Your task to perform on an android device: toggle wifi Image 0: 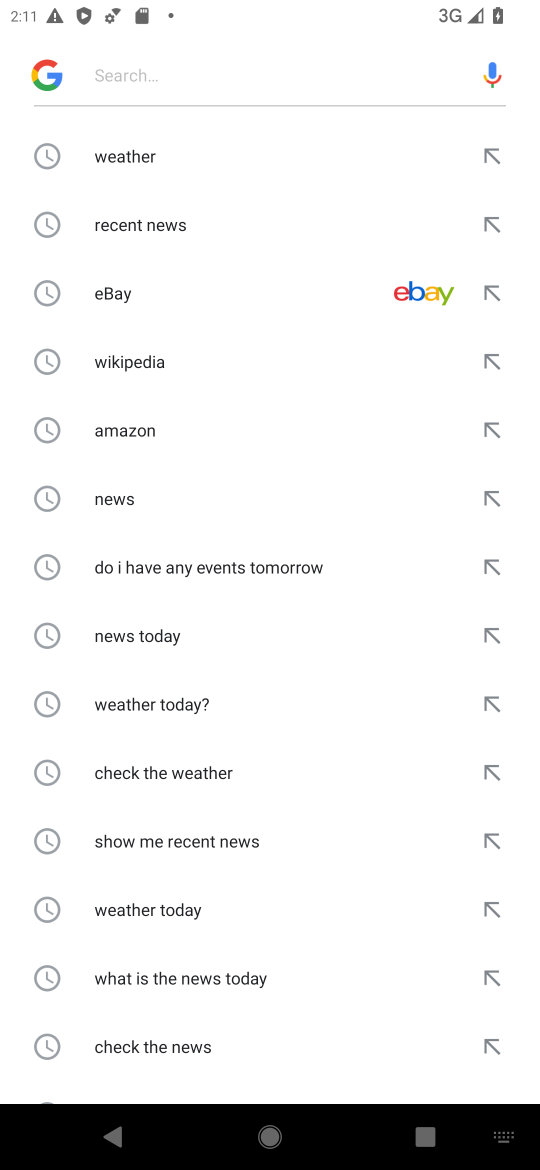
Step 0: press home button
Your task to perform on an android device: toggle wifi Image 1: 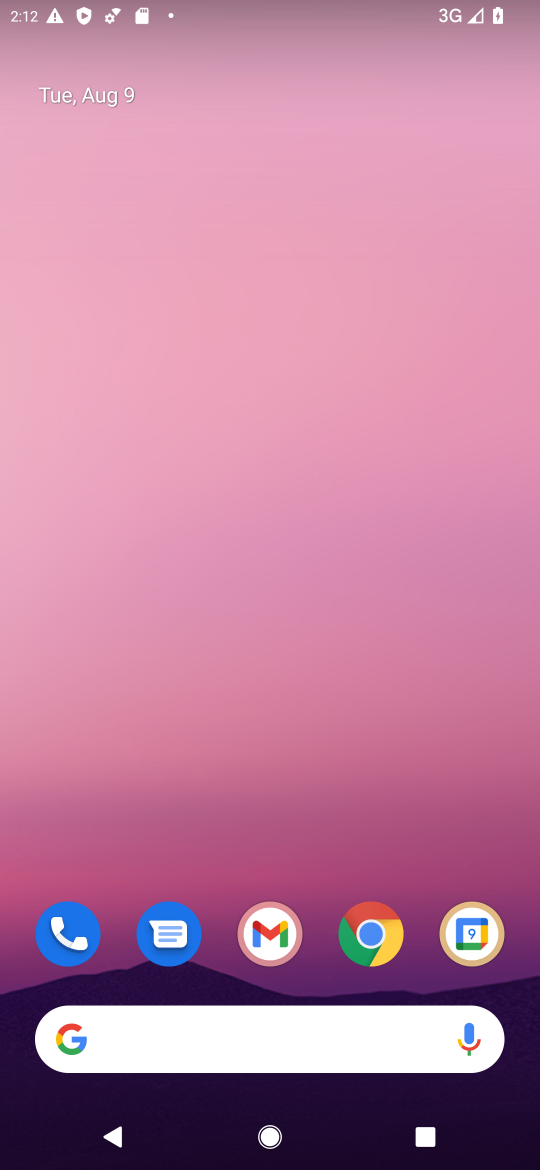
Step 1: drag from (312, 992) to (493, 136)
Your task to perform on an android device: toggle wifi Image 2: 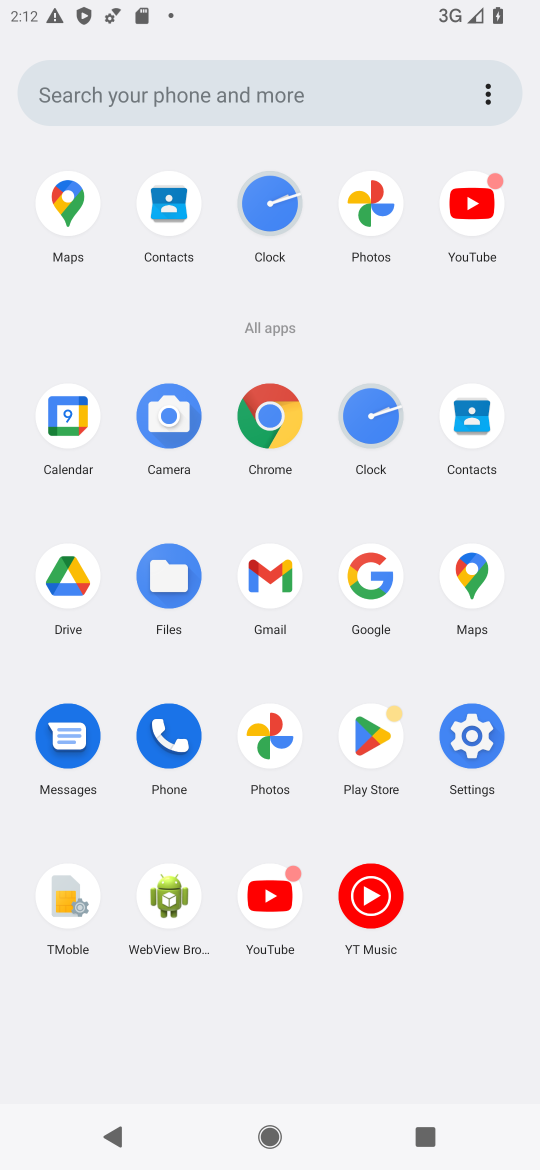
Step 2: click (480, 766)
Your task to perform on an android device: toggle wifi Image 3: 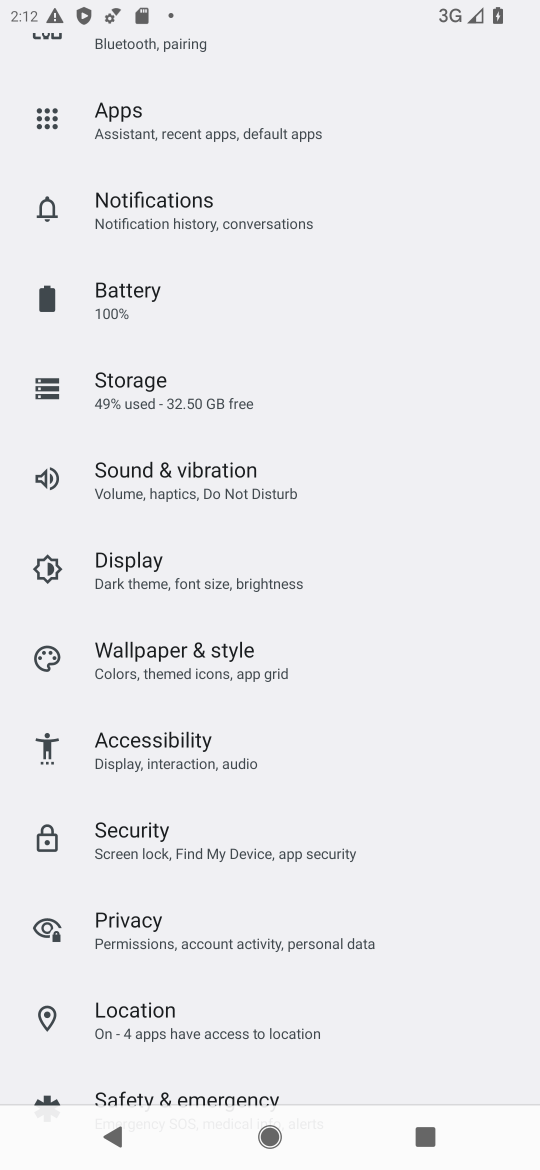
Step 3: drag from (259, 310) to (221, 1123)
Your task to perform on an android device: toggle wifi Image 4: 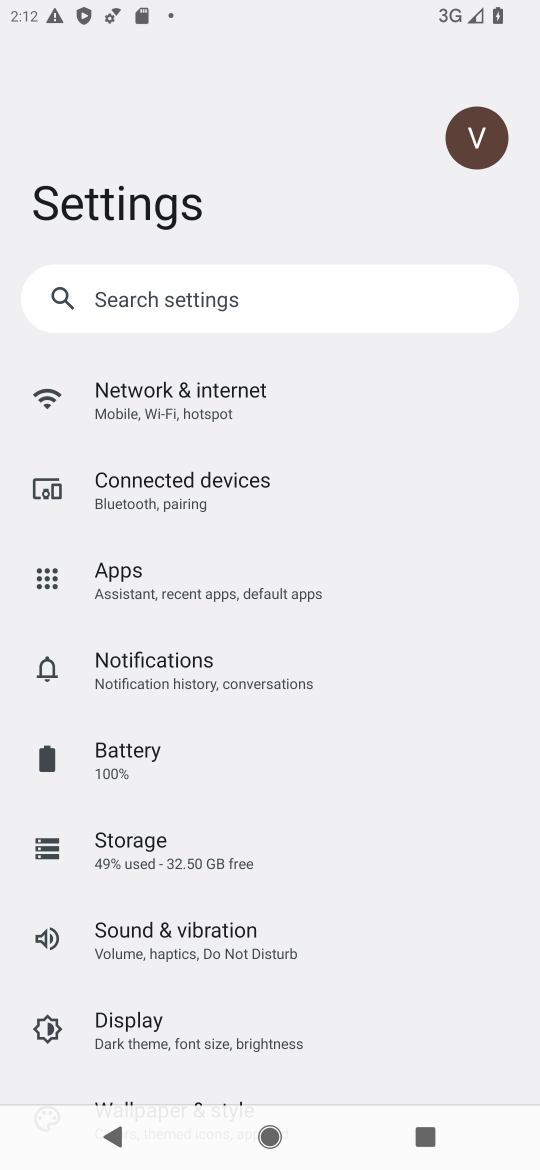
Step 4: click (241, 388)
Your task to perform on an android device: toggle wifi Image 5: 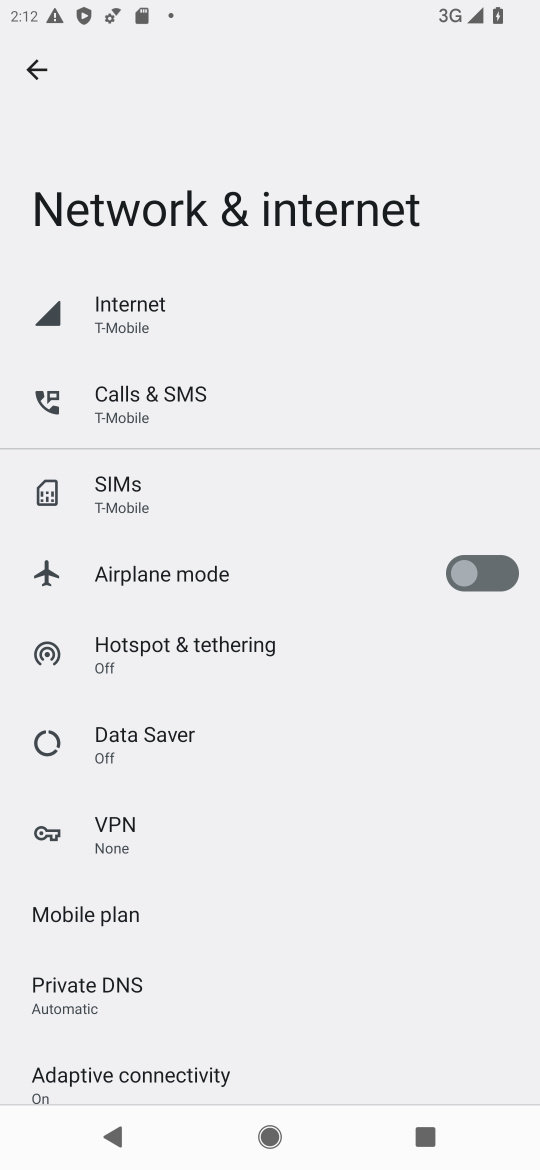
Step 5: task complete